Your task to perform on an android device: Search for pizza restaurants on Maps Image 0: 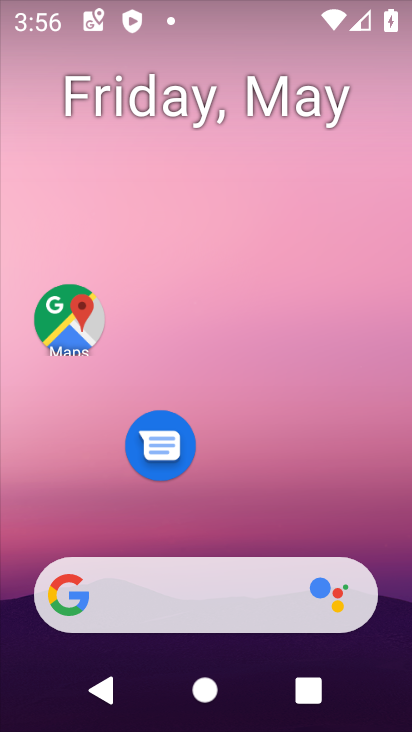
Step 0: click (244, 3)
Your task to perform on an android device: Search for pizza restaurants on Maps Image 1: 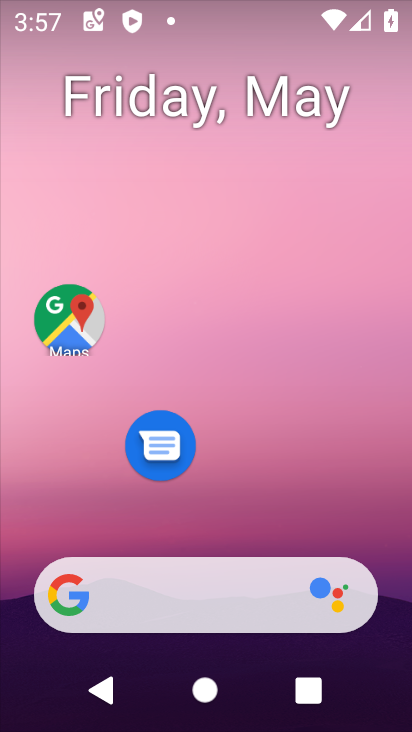
Step 1: click (78, 326)
Your task to perform on an android device: Search for pizza restaurants on Maps Image 2: 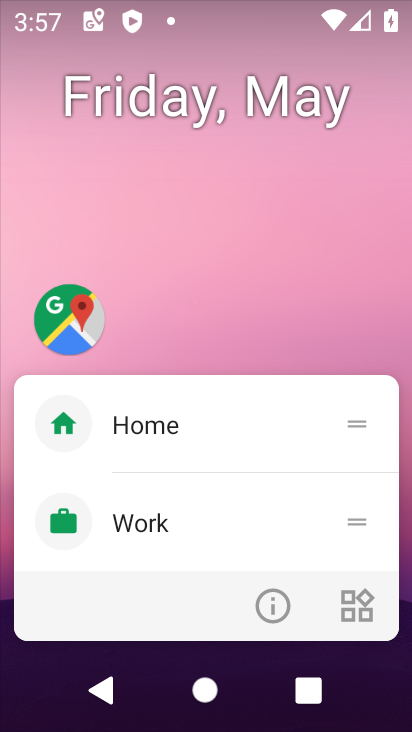
Step 2: click (78, 326)
Your task to perform on an android device: Search for pizza restaurants on Maps Image 3: 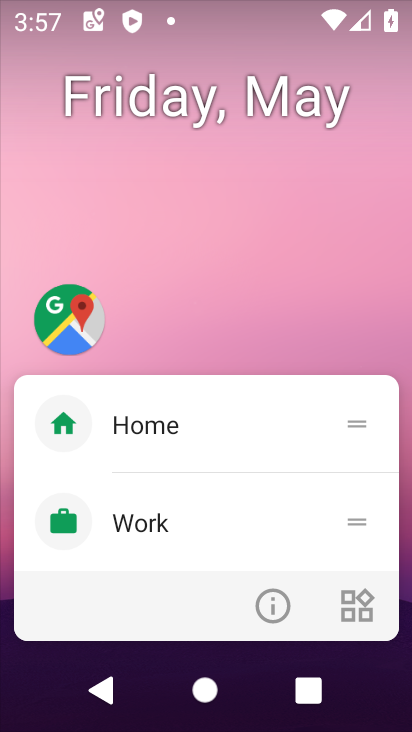
Step 3: click (78, 326)
Your task to perform on an android device: Search for pizza restaurants on Maps Image 4: 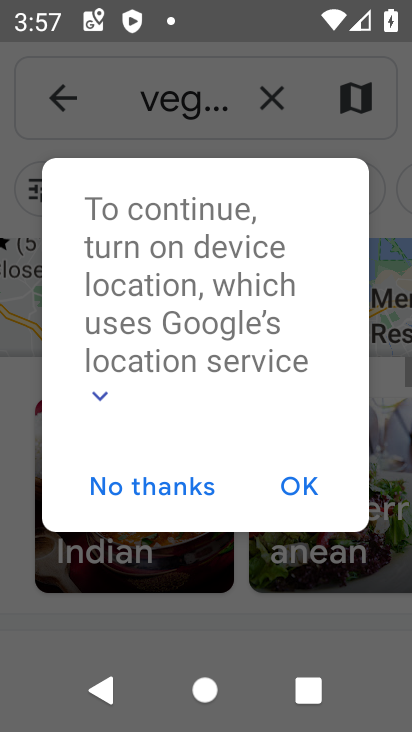
Step 4: click (273, 91)
Your task to perform on an android device: Search for pizza restaurants on Maps Image 5: 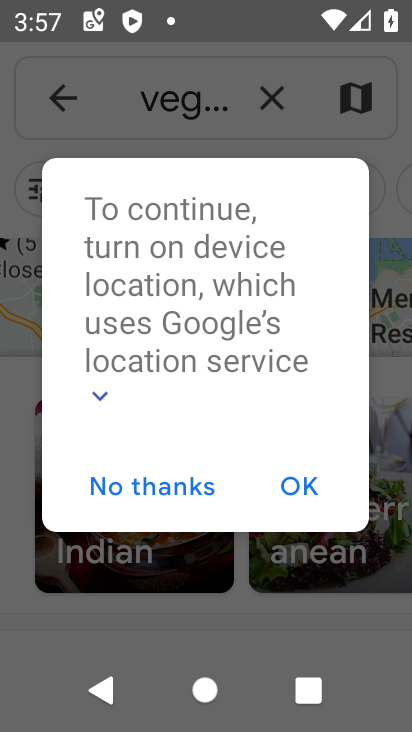
Step 5: click (159, 487)
Your task to perform on an android device: Search for pizza restaurants on Maps Image 6: 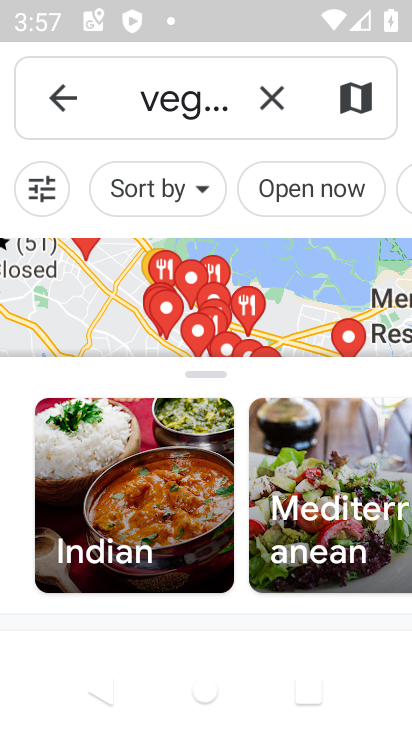
Step 6: click (274, 99)
Your task to perform on an android device: Search for pizza restaurants on Maps Image 7: 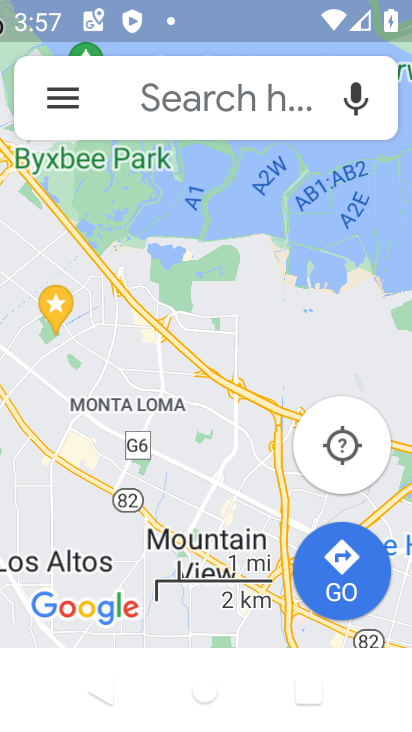
Step 7: click (205, 119)
Your task to perform on an android device: Search for pizza restaurants on Maps Image 8: 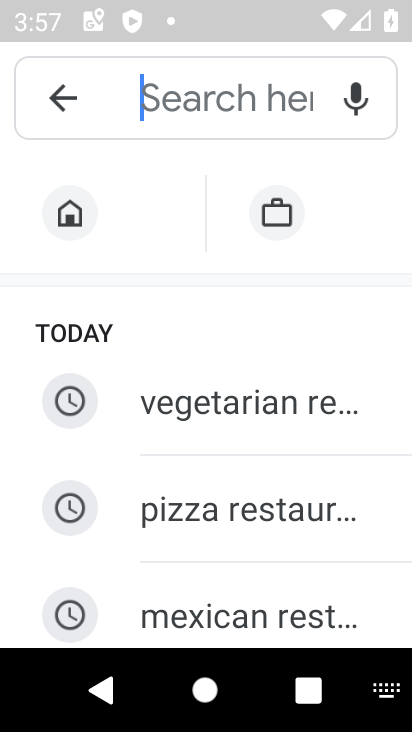
Step 8: type "Pizza restaurants"
Your task to perform on an android device: Search for pizza restaurants on Maps Image 9: 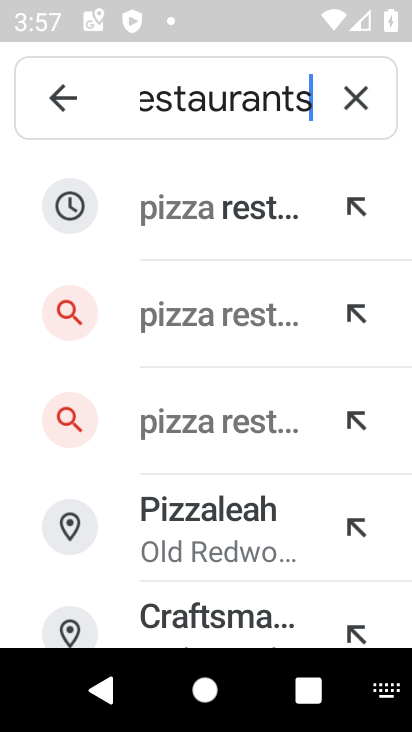
Step 9: click (161, 210)
Your task to perform on an android device: Search for pizza restaurants on Maps Image 10: 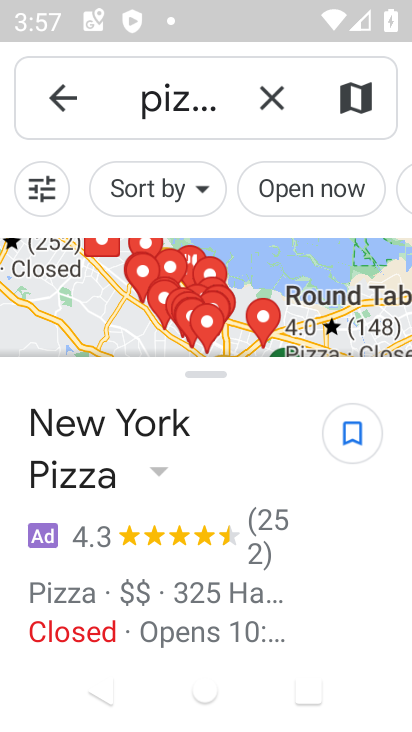
Step 10: task complete